Your task to perform on an android device: open device folders in google photos Image 0: 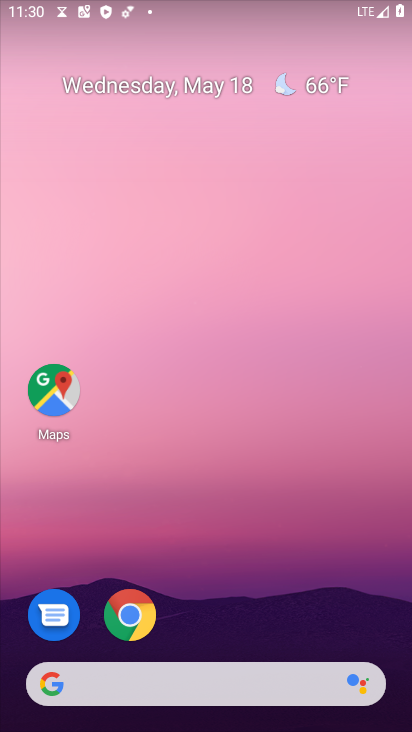
Step 0: drag from (198, 603) to (257, 2)
Your task to perform on an android device: open device folders in google photos Image 1: 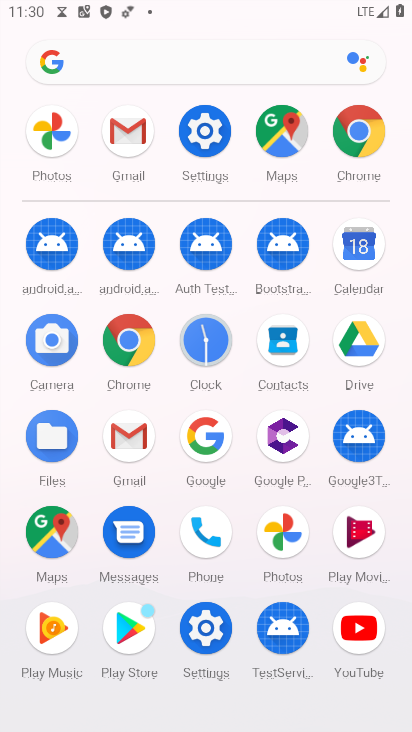
Step 1: click (285, 534)
Your task to perform on an android device: open device folders in google photos Image 2: 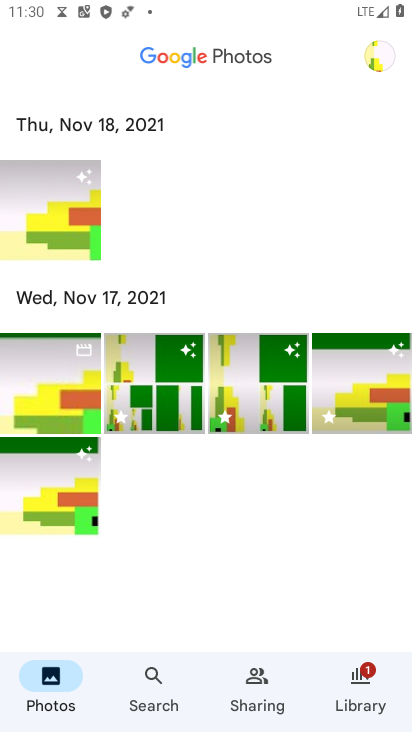
Step 2: click (246, 680)
Your task to perform on an android device: open device folders in google photos Image 3: 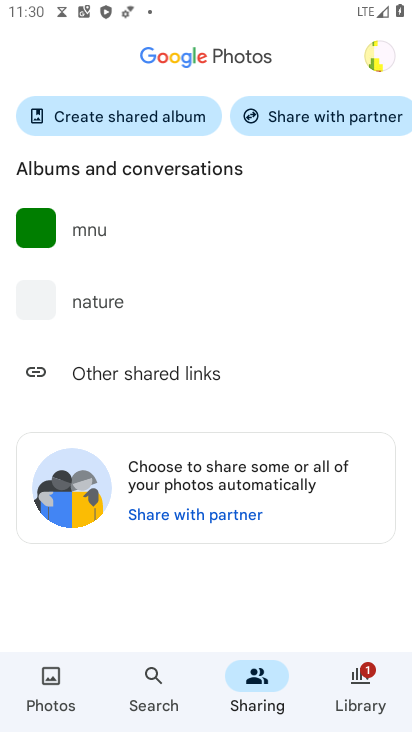
Step 3: click (352, 692)
Your task to perform on an android device: open device folders in google photos Image 4: 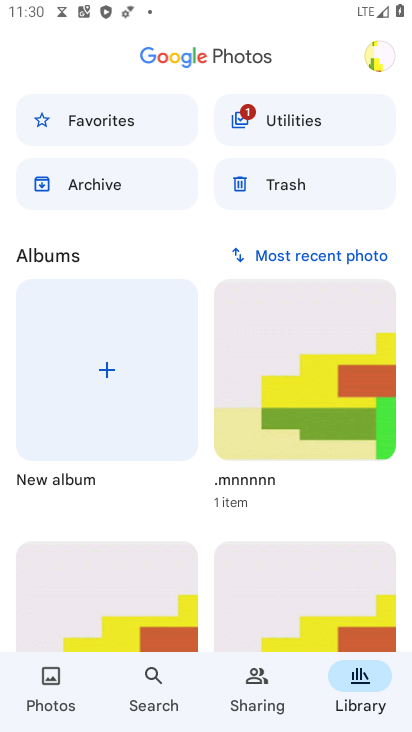
Step 4: click (263, 691)
Your task to perform on an android device: open device folders in google photos Image 5: 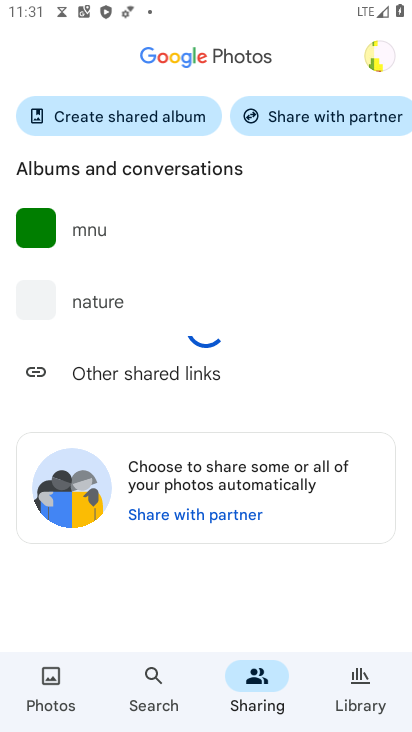
Step 5: task complete